Your task to perform on an android device: allow notifications from all sites in the chrome app Image 0: 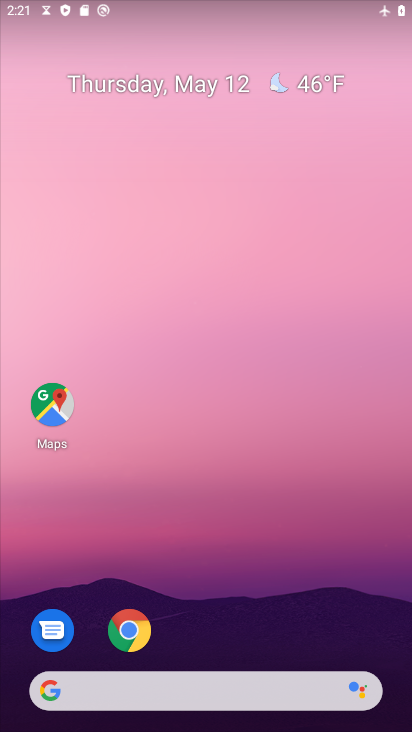
Step 0: drag from (230, 639) to (246, 168)
Your task to perform on an android device: allow notifications from all sites in the chrome app Image 1: 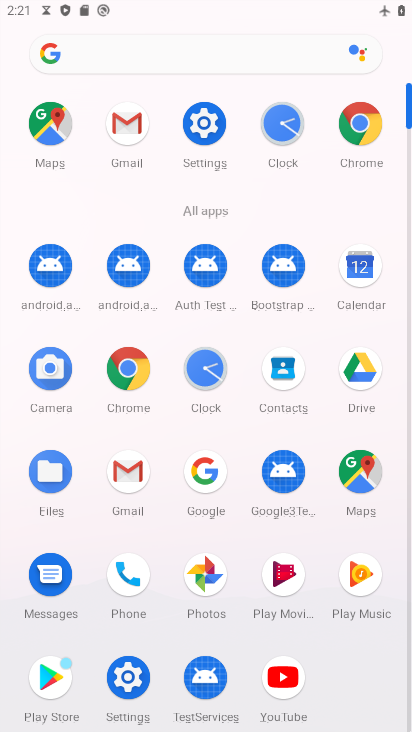
Step 1: click (372, 159)
Your task to perform on an android device: allow notifications from all sites in the chrome app Image 2: 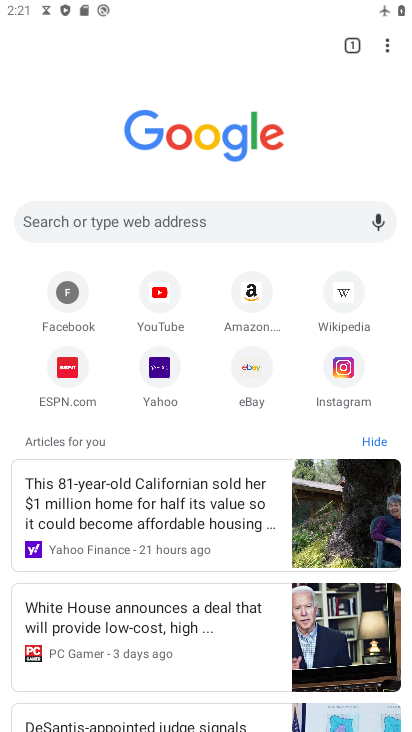
Step 2: click (388, 53)
Your task to perform on an android device: allow notifications from all sites in the chrome app Image 3: 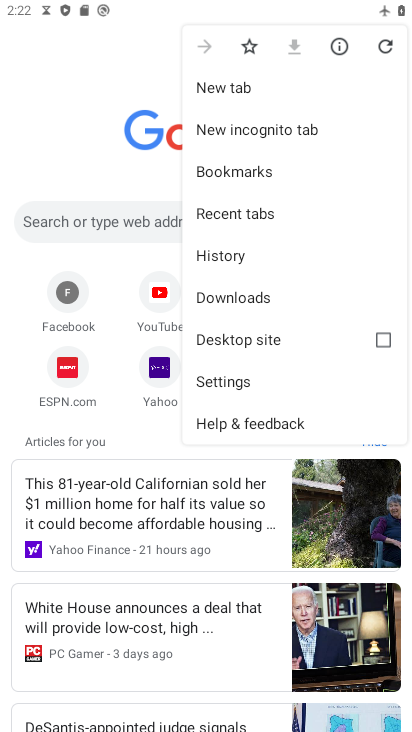
Step 3: click (230, 388)
Your task to perform on an android device: allow notifications from all sites in the chrome app Image 4: 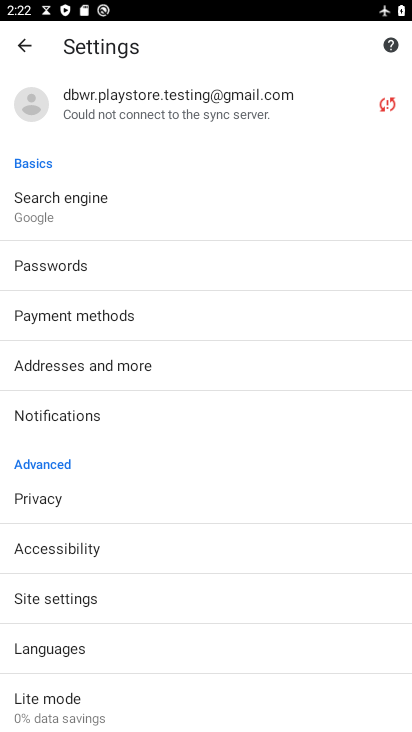
Step 4: click (72, 597)
Your task to perform on an android device: allow notifications from all sites in the chrome app Image 5: 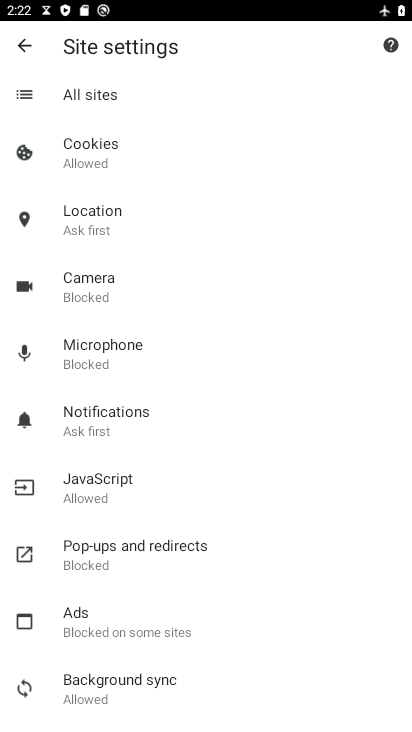
Step 5: click (85, 104)
Your task to perform on an android device: allow notifications from all sites in the chrome app Image 6: 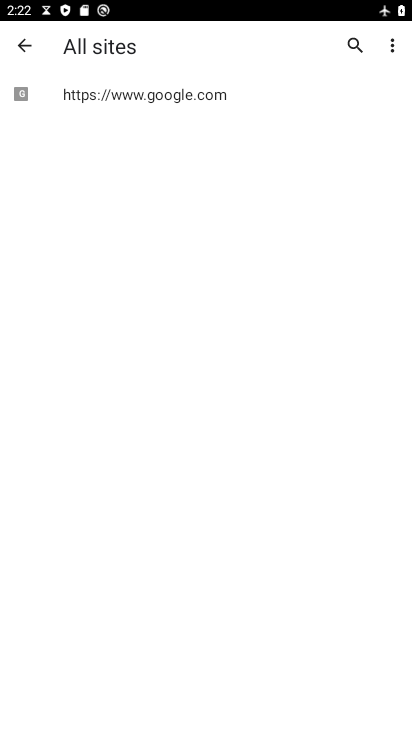
Step 6: click (139, 91)
Your task to perform on an android device: allow notifications from all sites in the chrome app Image 7: 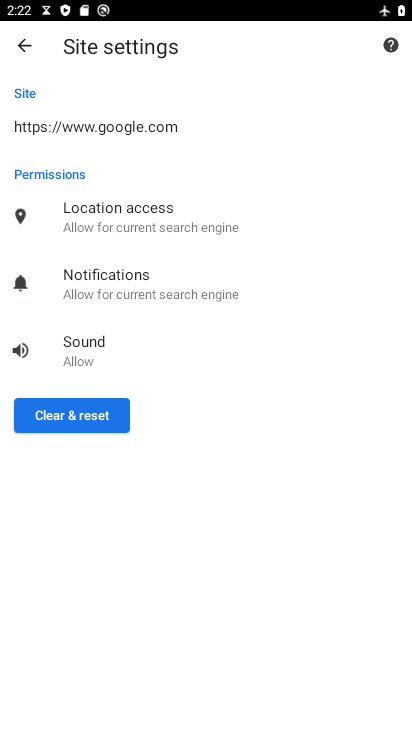
Step 7: click (133, 290)
Your task to perform on an android device: allow notifications from all sites in the chrome app Image 8: 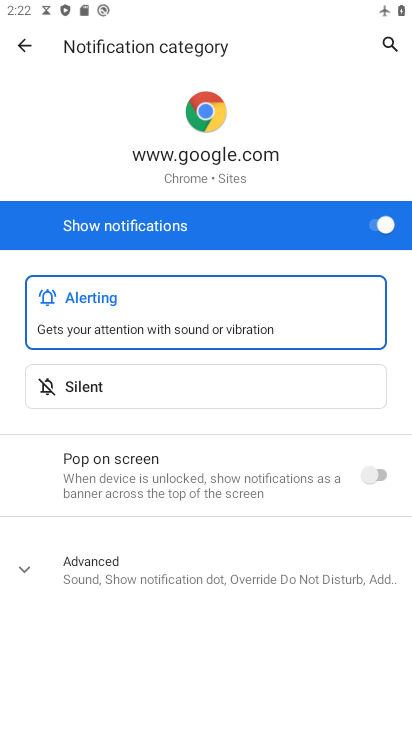
Step 8: task complete